Your task to perform on an android device: toggle wifi Image 0: 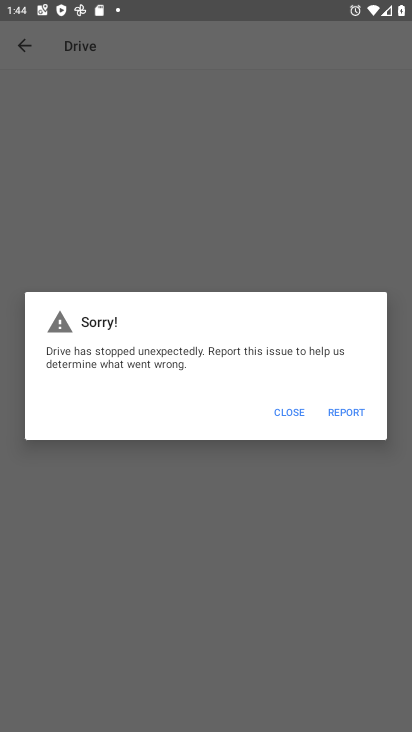
Step 0: press home button
Your task to perform on an android device: toggle wifi Image 1: 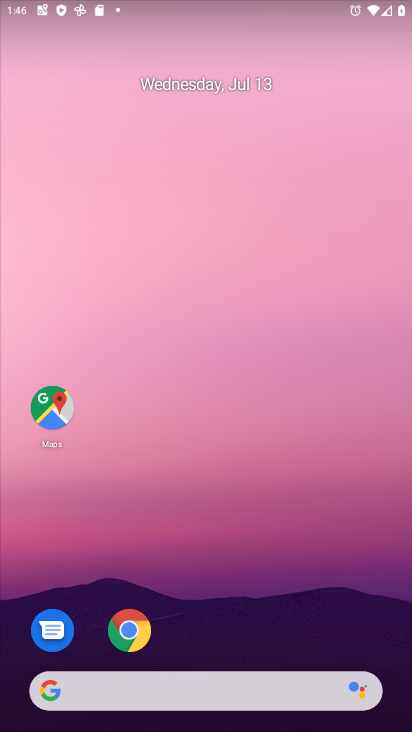
Step 1: drag from (188, 4) to (183, 536)
Your task to perform on an android device: toggle wifi Image 2: 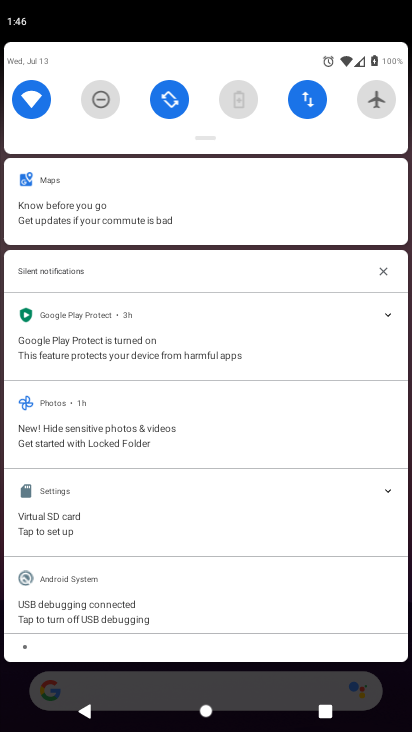
Step 2: click (24, 102)
Your task to perform on an android device: toggle wifi Image 3: 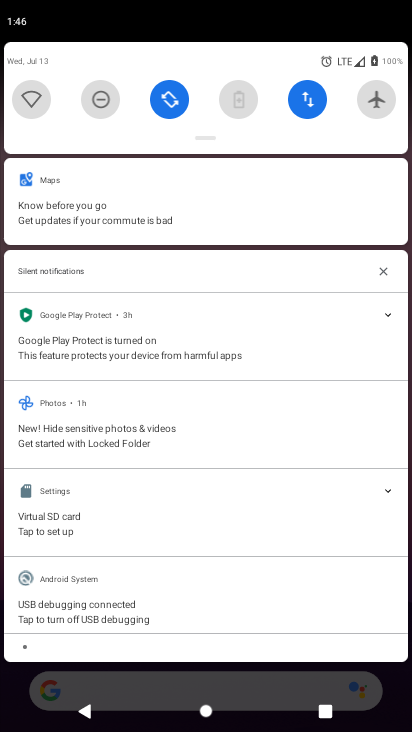
Step 3: task complete